Your task to perform on an android device: show emergency info Image 0: 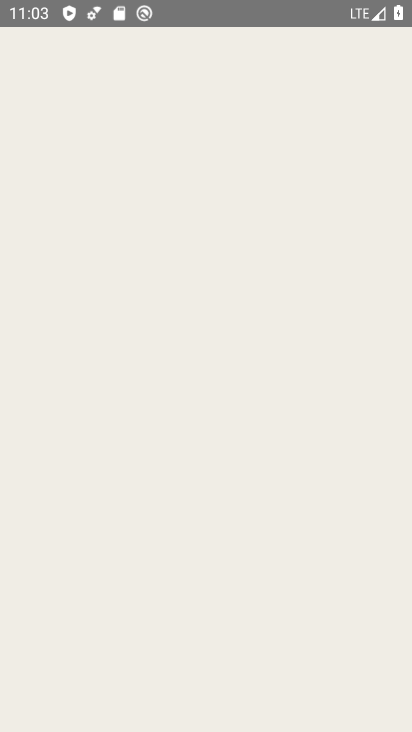
Step 0: click (110, 14)
Your task to perform on an android device: show emergency info Image 1: 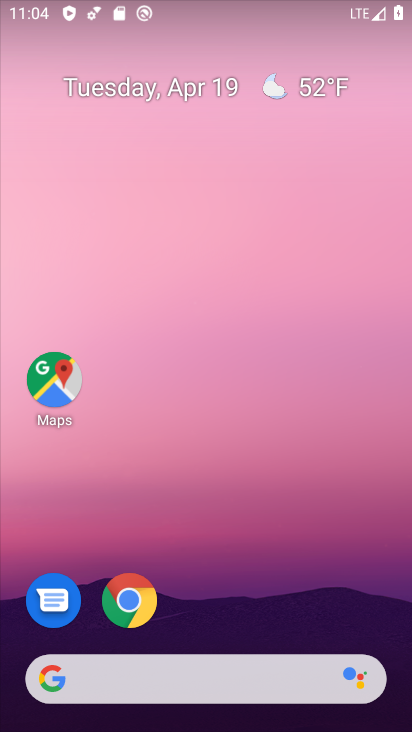
Step 1: drag from (247, 643) to (216, 28)
Your task to perform on an android device: show emergency info Image 2: 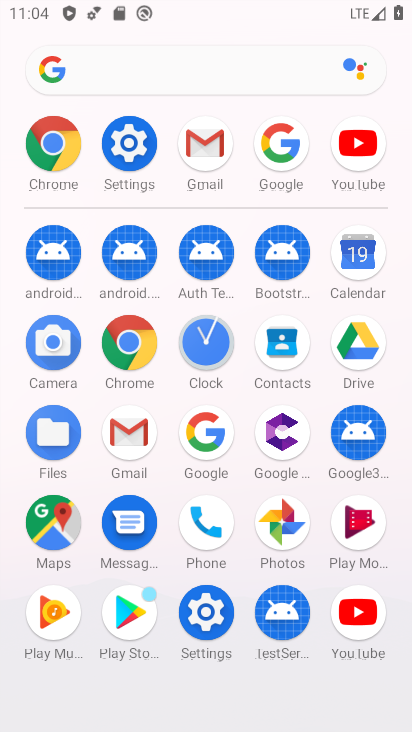
Step 2: click (135, 163)
Your task to perform on an android device: show emergency info Image 3: 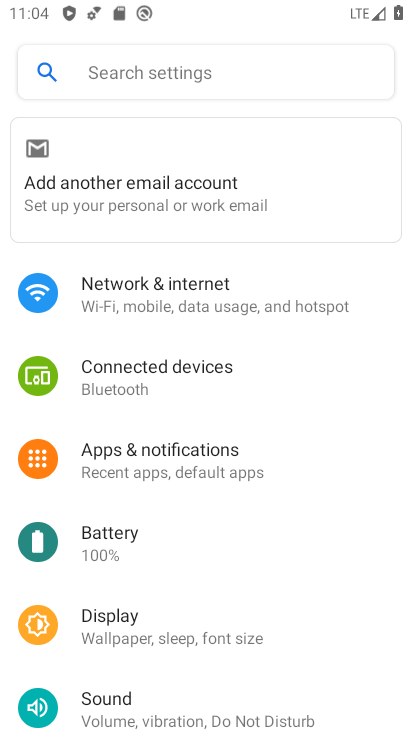
Step 3: drag from (202, 678) to (202, 49)
Your task to perform on an android device: show emergency info Image 4: 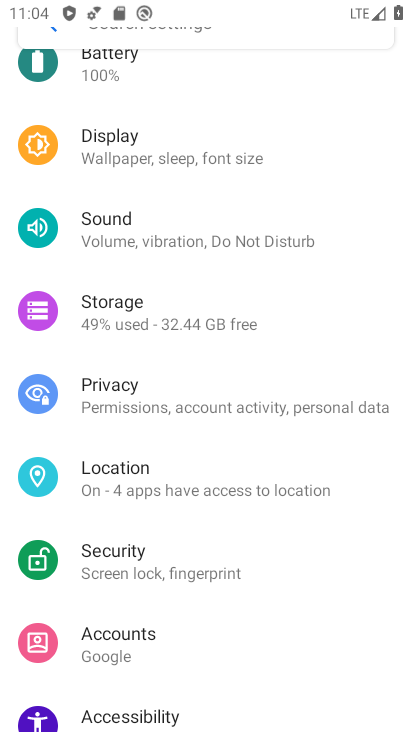
Step 4: drag from (224, 609) to (178, 133)
Your task to perform on an android device: show emergency info Image 5: 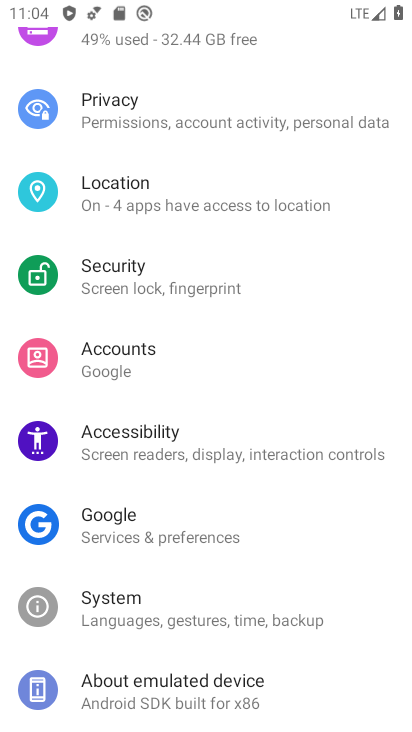
Step 5: click (166, 679)
Your task to perform on an android device: show emergency info Image 6: 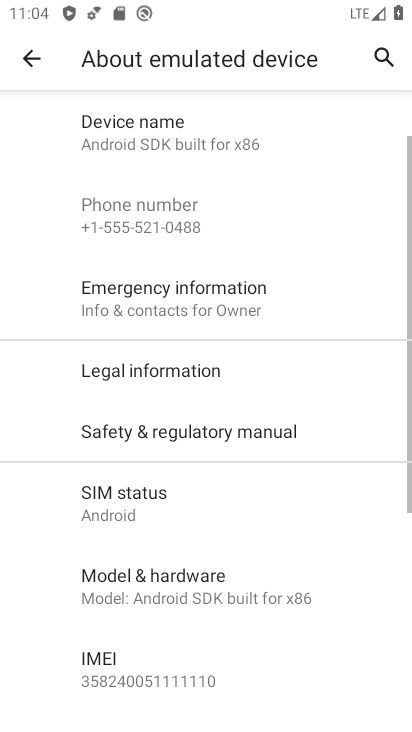
Step 6: click (132, 307)
Your task to perform on an android device: show emergency info Image 7: 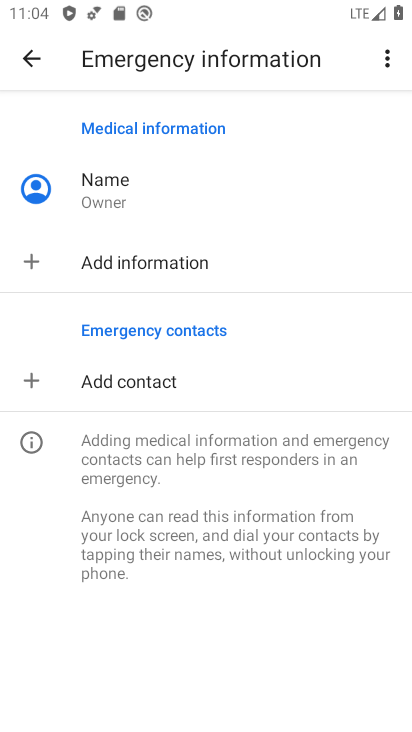
Step 7: task complete